Your task to perform on an android device: turn notification dots off Image 0: 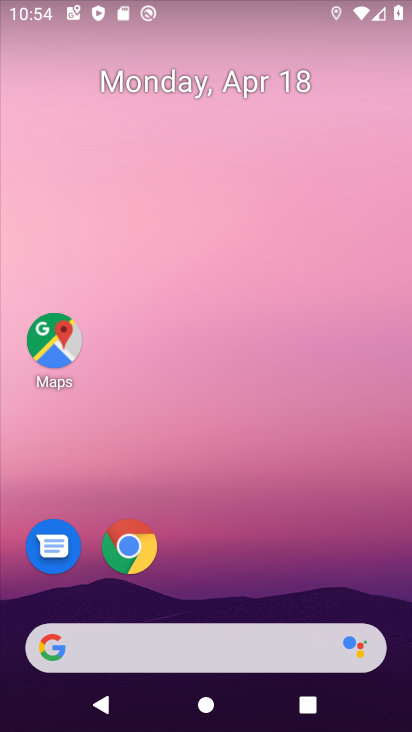
Step 0: drag from (266, 585) to (263, 103)
Your task to perform on an android device: turn notification dots off Image 1: 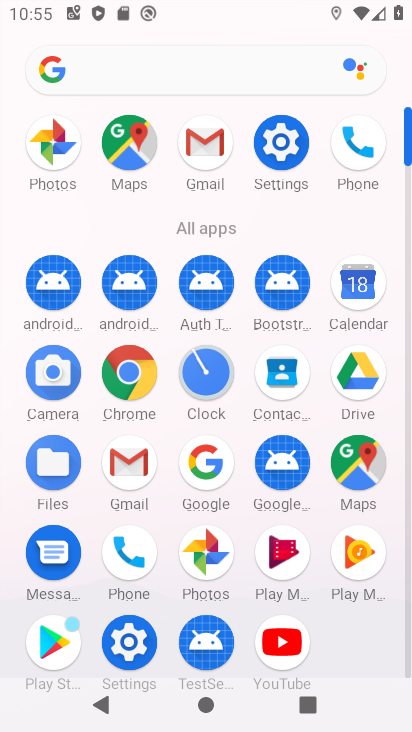
Step 1: click (136, 644)
Your task to perform on an android device: turn notification dots off Image 2: 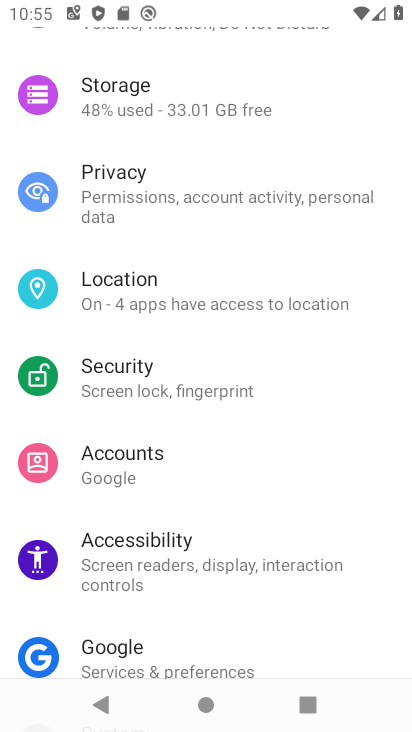
Step 2: drag from (210, 263) to (215, 606)
Your task to perform on an android device: turn notification dots off Image 3: 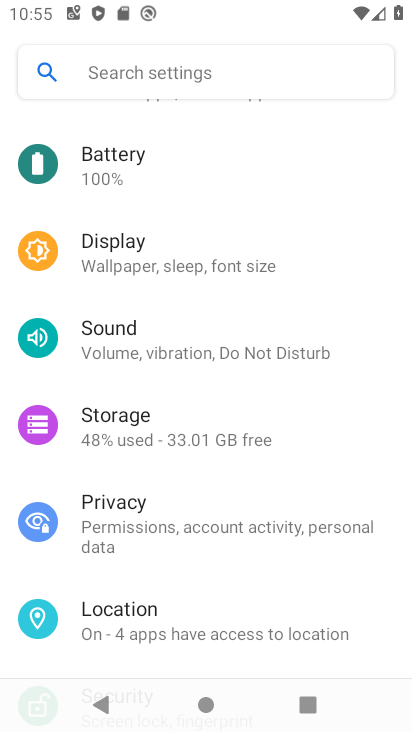
Step 3: drag from (237, 169) to (236, 605)
Your task to perform on an android device: turn notification dots off Image 4: 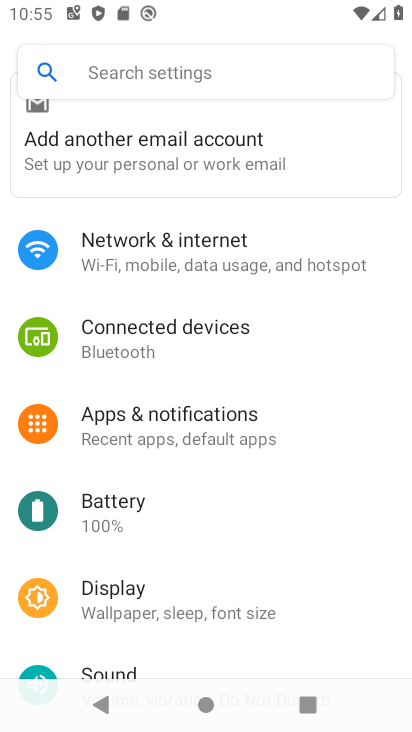
Step 4: click (221, 408)
Your task to perform on an android device: turn notification dots off Image 5: 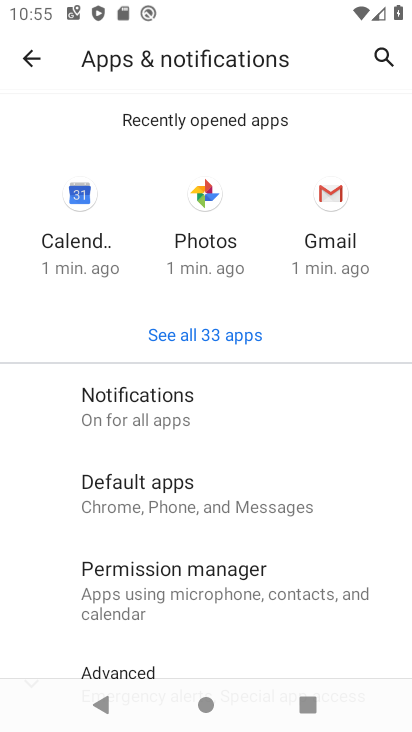
Step 5: drag from (235, 619) to (298, 336)
Your task to perform on an android device: turn notification dots off Image 6: 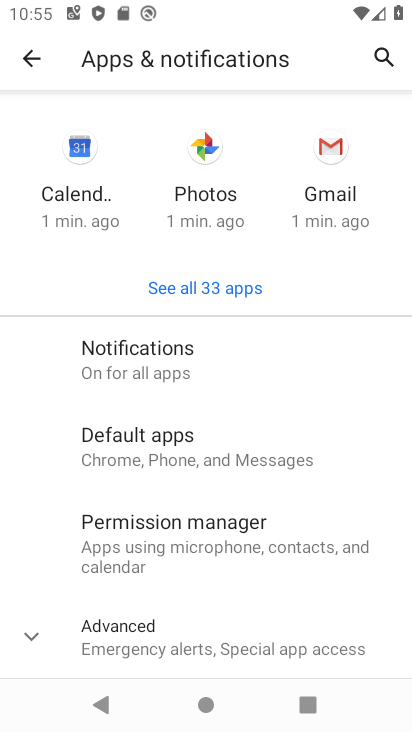
Step 6: click (212, 610)
Your task to perform on an android device: turn notification dots off Image 7: 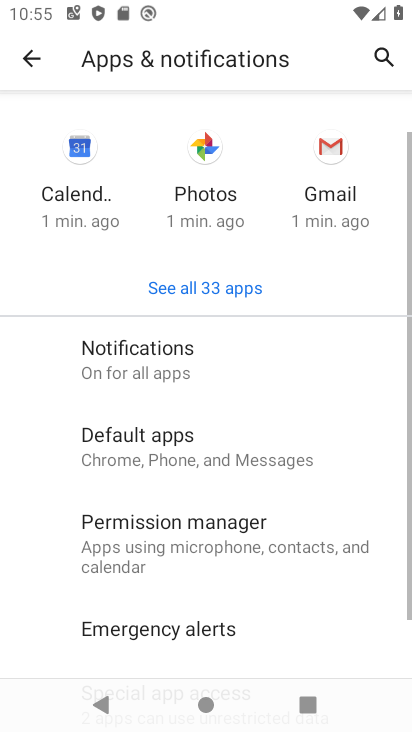
Step 7: drag from (212, 608) to (233, 364)
Your task to perform on an android device: turn notification dots off Image 8: 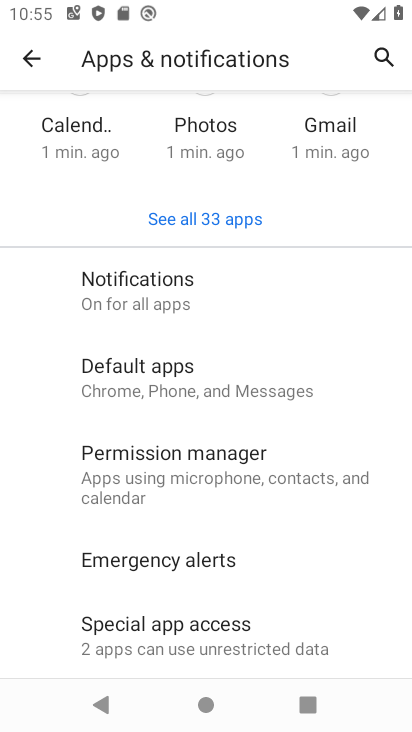
Step 8: click (215, 313)
Your task to perform on an android device: turn notification dots off Image 9: 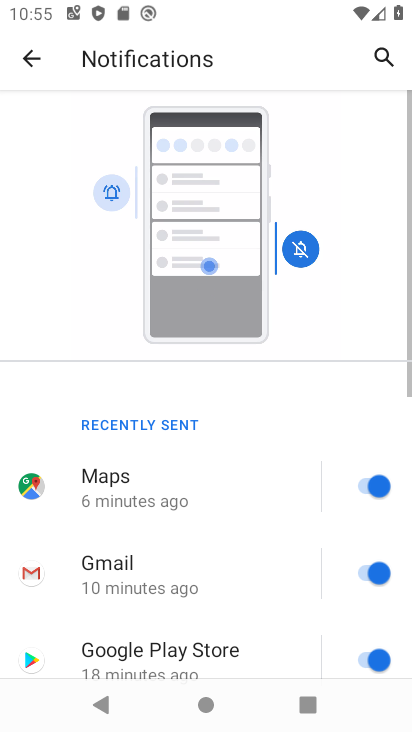
Step 9: drag from (221, 559) to (240, 202)
Your task to perform on an android device: turn notification dots off Image 10: 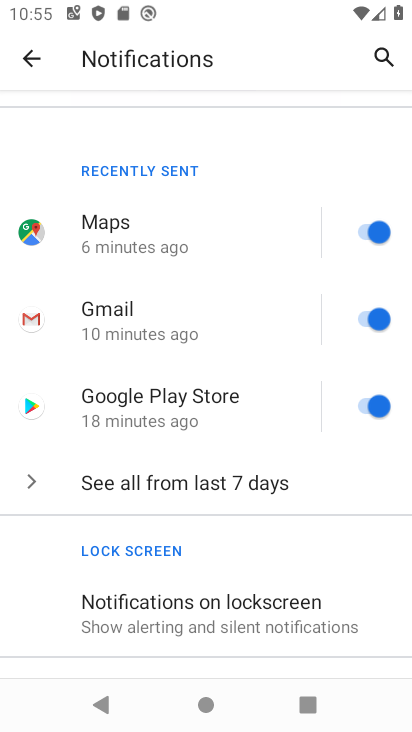
Step 10: drag from (237, 569) to (245, 255)
Your task to perform on an android device: turn notification dots off Image 11: 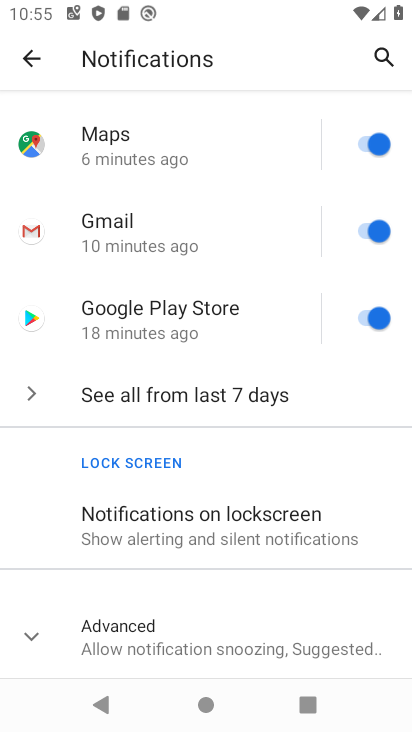
Step 11: click (180, 629)
Your task to perform on an android device: turn notification dots off Image 12: 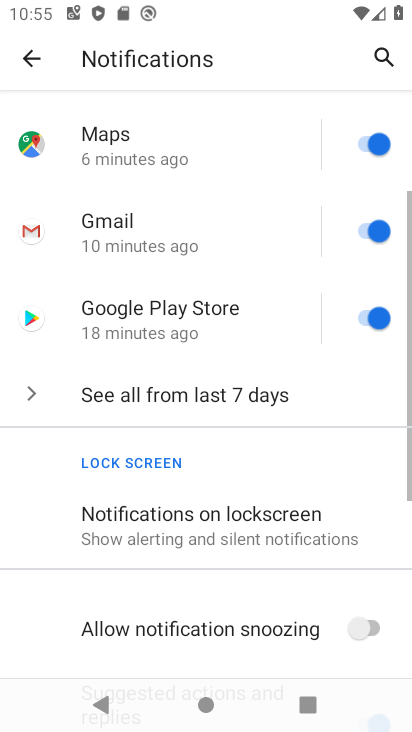
Step 12: drag from (237, 591) to (248, 198)
Your task to perform on an android device: turn notification dots off Image 13: 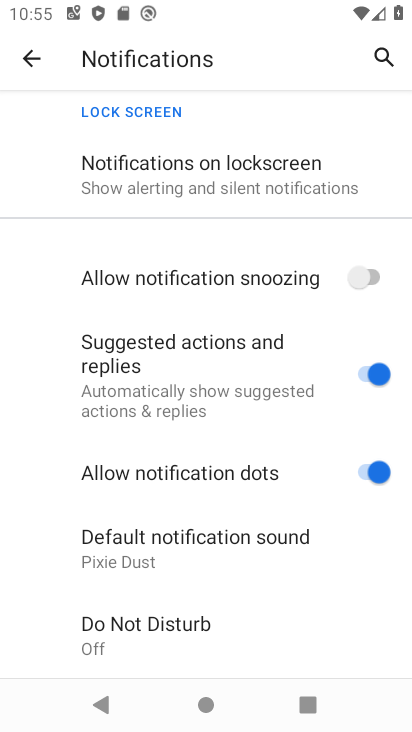
Step 13: click (338, 484)
Your task to perform on an android device: turn notification dots off Image 14: 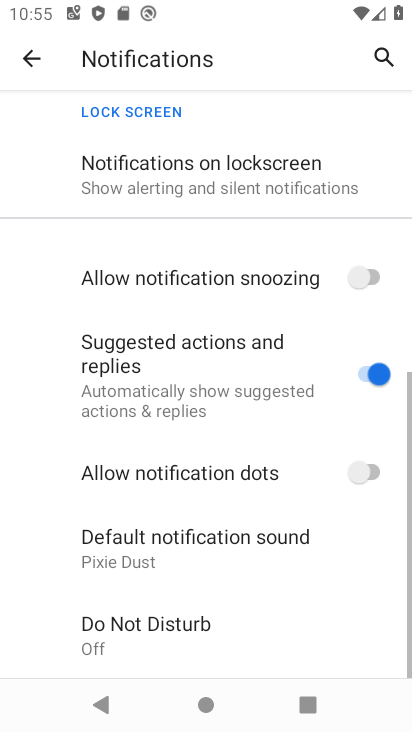
Step 14: task complete